Your task to perform on an android device: Clear the shopping cart on target.com. Search for logitech g910 on target.com, select the first entry, add it to the cart, then select checkout. Image 0: 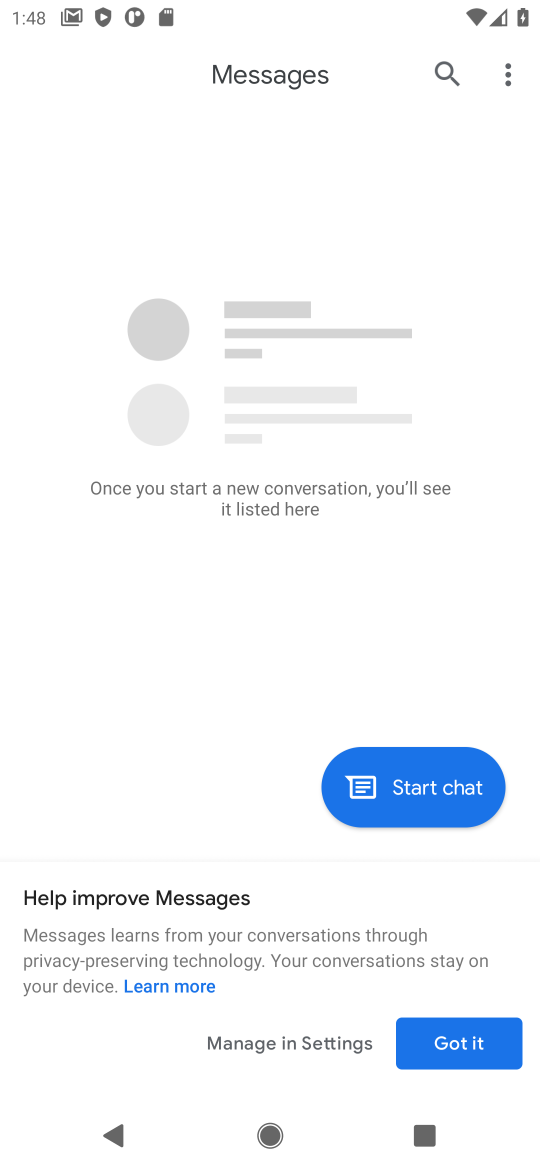
Step 0: press home button
Your task to perform on an android device: Clear the shopping cart on target.com. Search for logitech g910 on target.com, select the first entry, add it to the cart, then select checkout. Image 1: 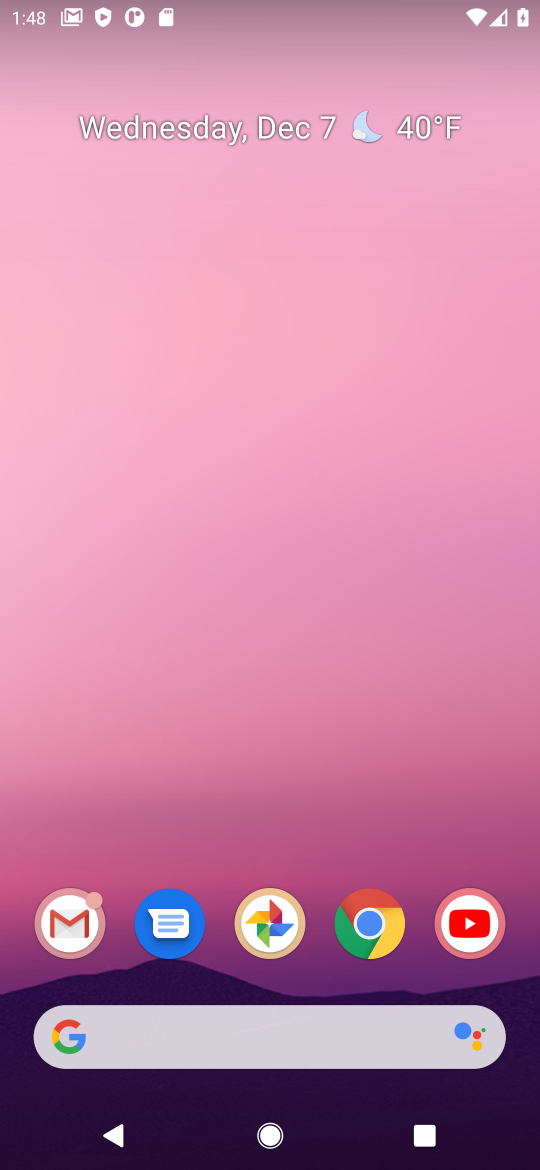
Step 1: click (373, 936)
Your task to perform on an android device: Clear the shopping cart on target.com. Search for logitech g910 on target.com, select the first entry, add it to the cart, then select checkout. Image 2: 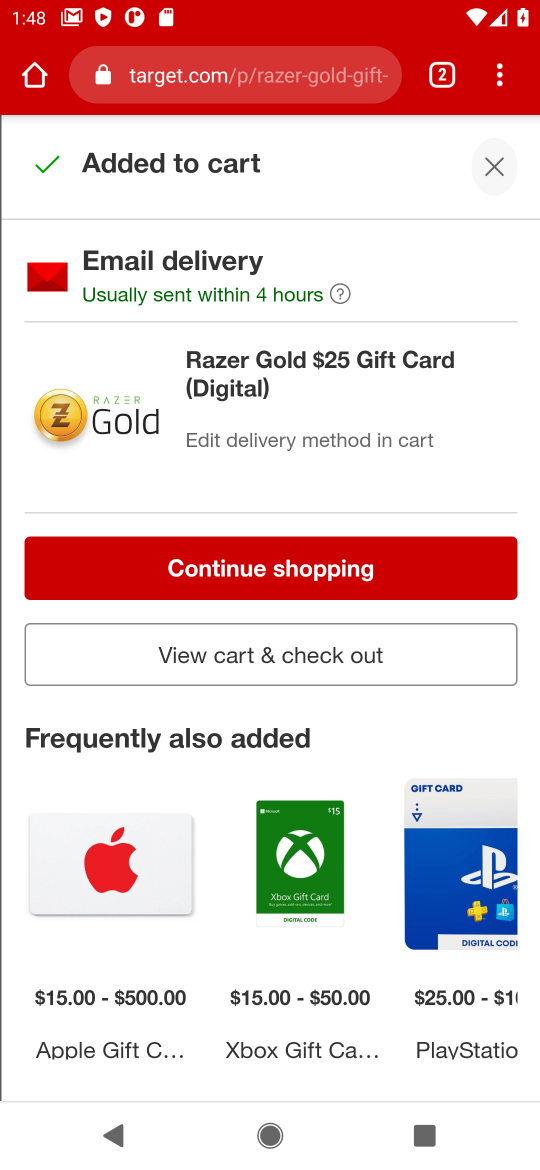
Step 2: click (486, 164)
Your task to perform on an android device: Clear the shopping cart on target.com. Search for logitech g910 on target.com, select the first entry, add it to the cart, then select checkout. Image 3: 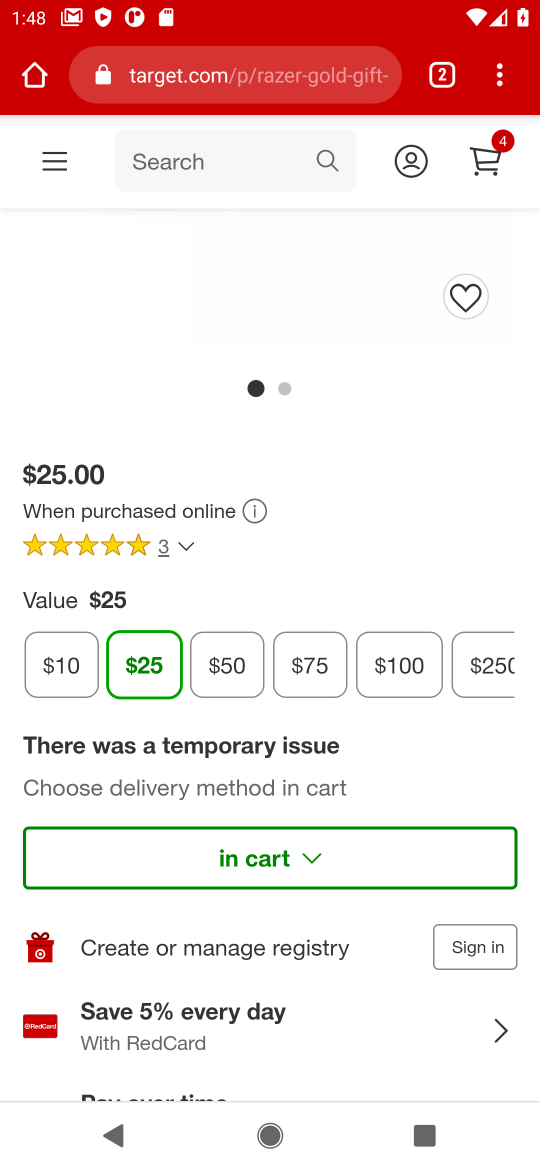
Step 3: click (491, 165)
Your task to perform on an android device: Clear the shopping cart on target.com. Search for logitech g910 on target.com, select the first entry, add it to the cart, then select checkout. Image 4: 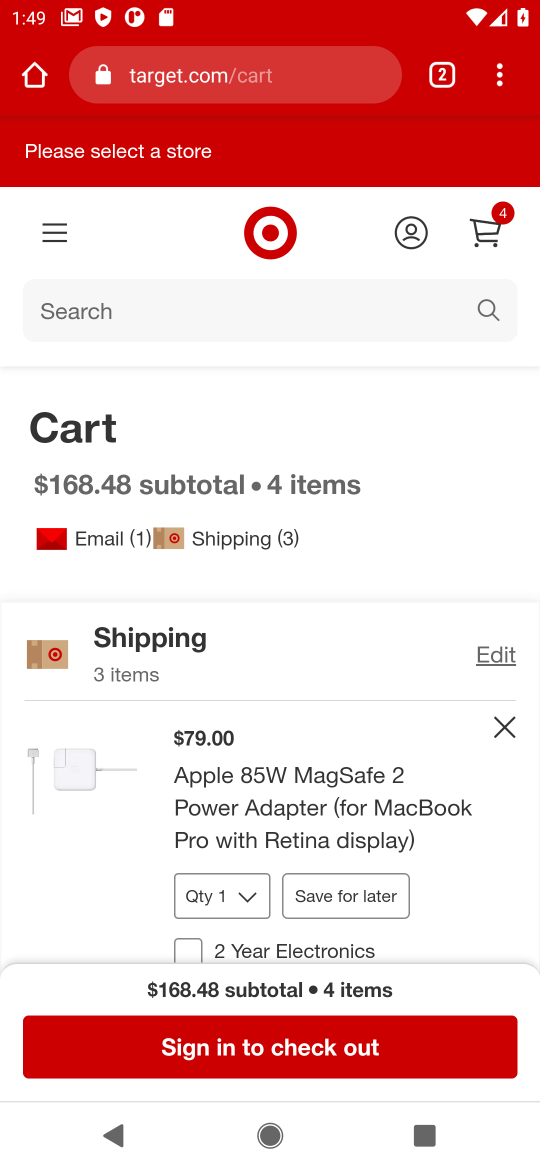
Step 4: drag from (265, 916) to (237, 359)
Your task to perform on an android device: Clear the shopping cart on target.com. Search for logitech g910 on target.com, select the first entry, add it to the cart, then select checkout. Image 5: 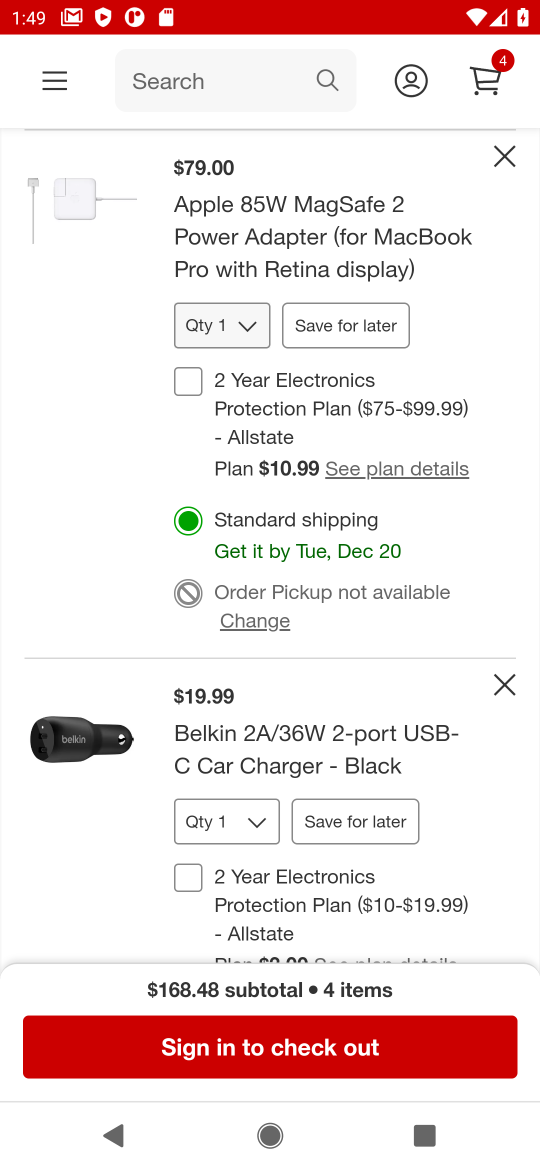
Step 5: click (502, 146)
Your task to perform on an android device: Clear the shopping cart on target.com. Search for logitech g910 on target.com, select the first entry, add it to the cart, then select checkout. Image 6: 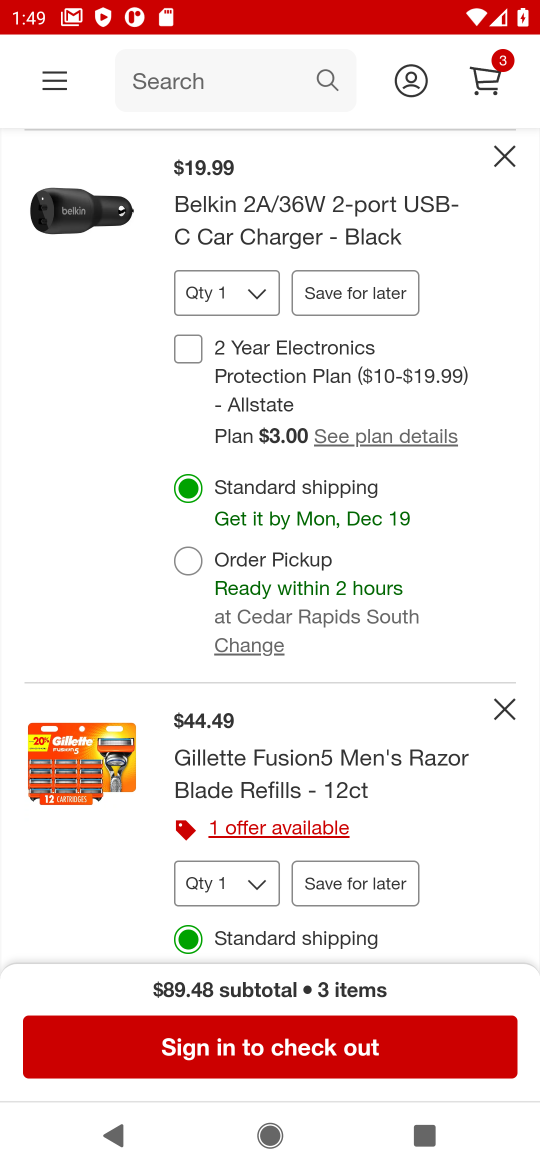
Step 6: click (502, 146)
Your task to perform on an android device: Clear the shopping cart on target.com. Search for logitech g910 on target.com, select the first entry, add it to the cart, then select checkout. Image 7: 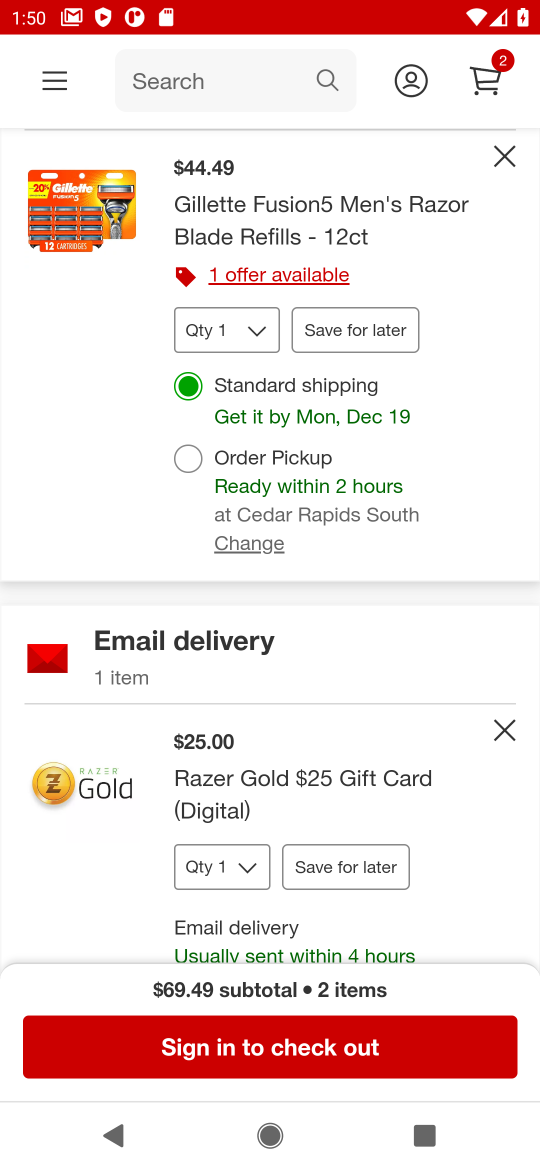
Step 7: click (501, 158)
Your task to perform on an android device: Clear the shopping cart on target.com. Search for logitech g910 on target.com, select the first entry, add it to the cart, then select checkout. Image 8: 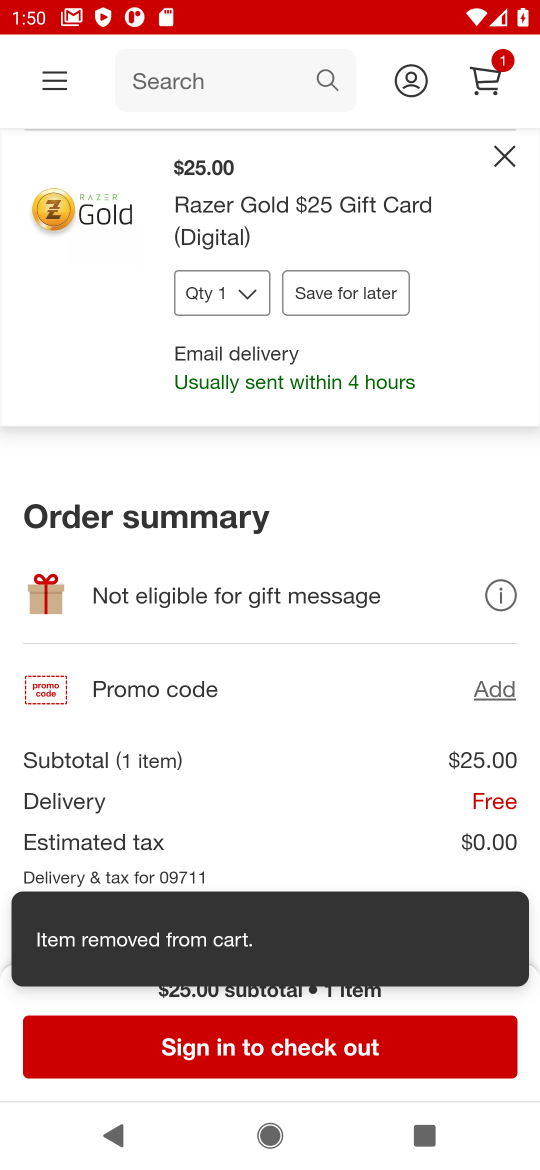
Step 8: click (501, 158)
Your task to perform on an android device: Clear the shopping cart on target.com. Search for logitech g910 on target.com, select the first entry, add it to the cart, then select checkout. Image 9: 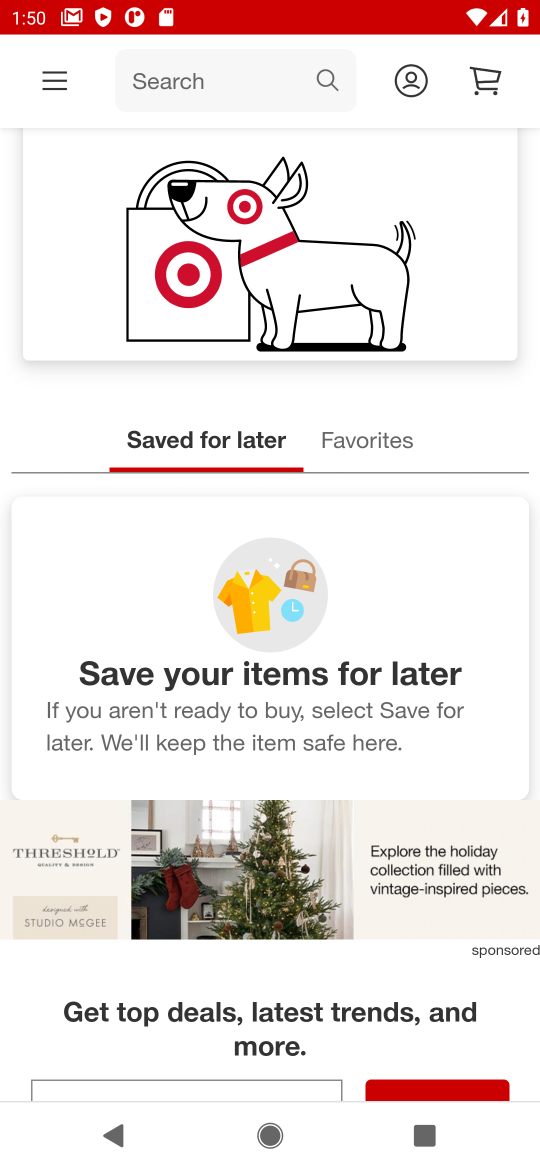
Step 9: click (232, 81)
Your task to perform on an android device: Clear the shopping cart on target.com. Search for logitech g910 on target.com, select the first entry, add it to the cart, then select checkout. Image 10: 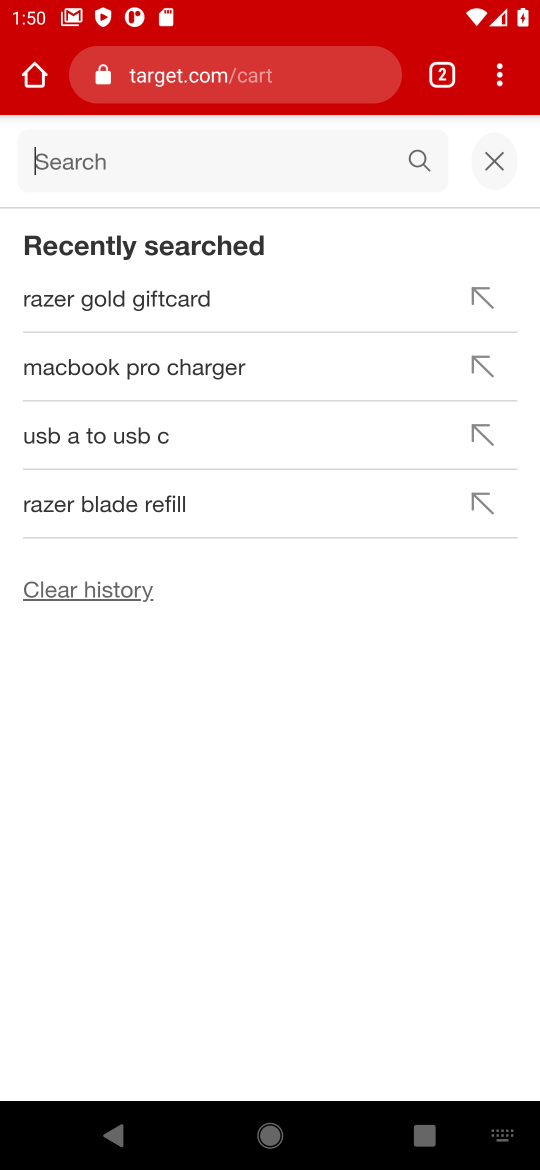
Step 10: type "logitech g910"
Your task to perform on an android device: Clear the shopping cart on target.com. Search for logitech g910 on target.com, select the first entry, add it to the cart, then select checkout. Image 11: 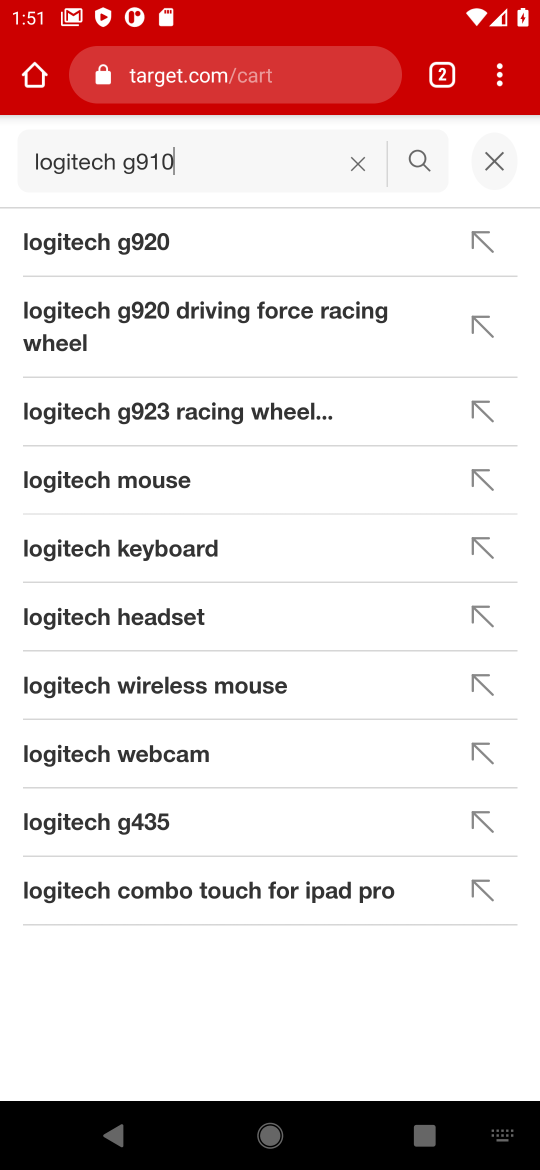
Step 11: click (179, 254)
Your task to perform on an android device: Clear the shopping cart on target.com. Search for logitech g910 on target.com, select the first entry, add it to the cart, then select checkout. Image 12: 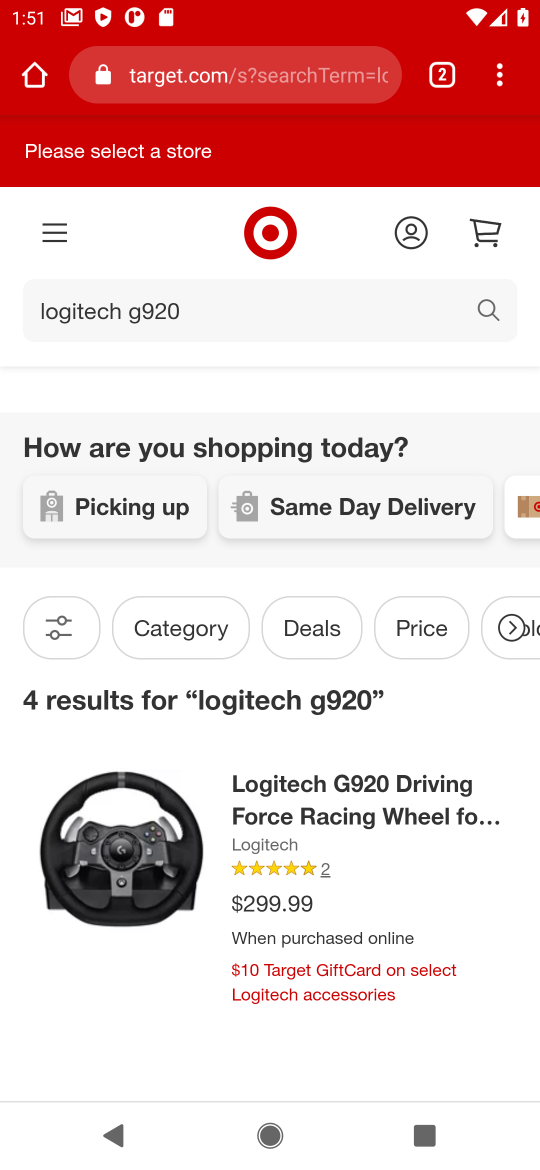
Step 12: click (138, 875)
Your task to perform on an android device: Clear the shopping cart on target.com. Search for logitech g910 on target.com, select the first entry, add it to the cart, then select checkout. Image 13: 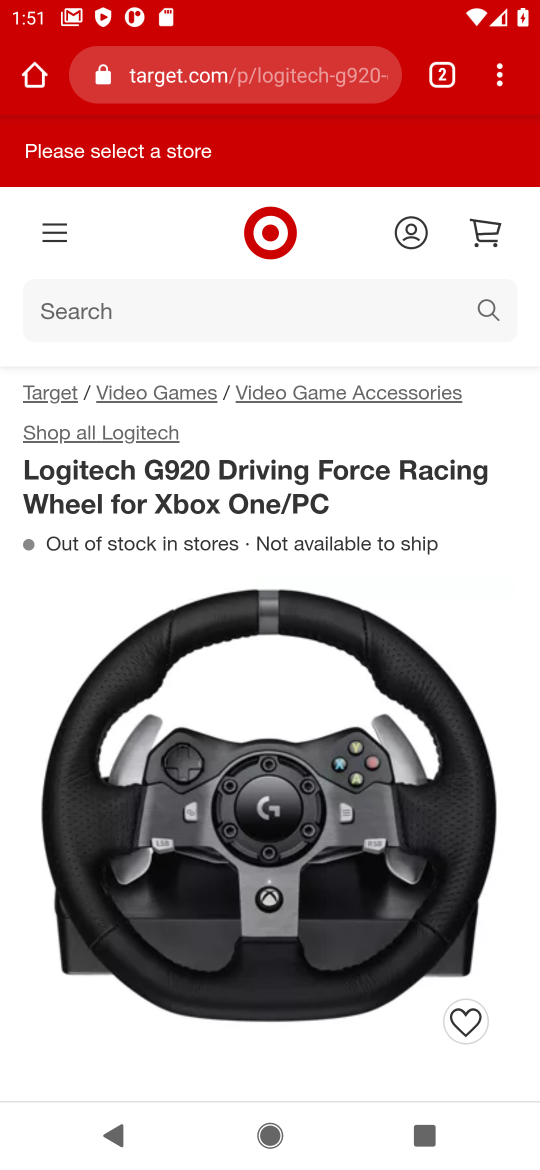
Step 13: drag from (371, 898) to (348, 219)
Your task to perform on an android device: Clear the shopping cart on target.com. Search for logitech g910 on target.com, select the first entry, add it to the cart, then select checkout. Image 14: 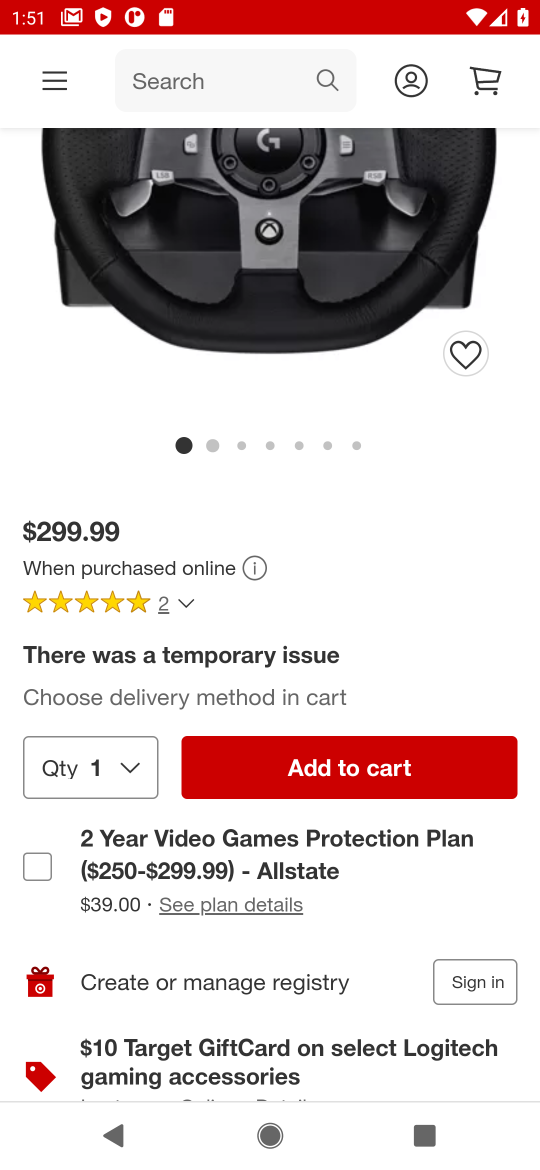
Step 14: click (355, 760)
Your task to perform on an android device: Clear the shopping cart on target.com. Search for logitech g910 on target.com, select the first entry, add it to the cart, then select checkout. Image 15: 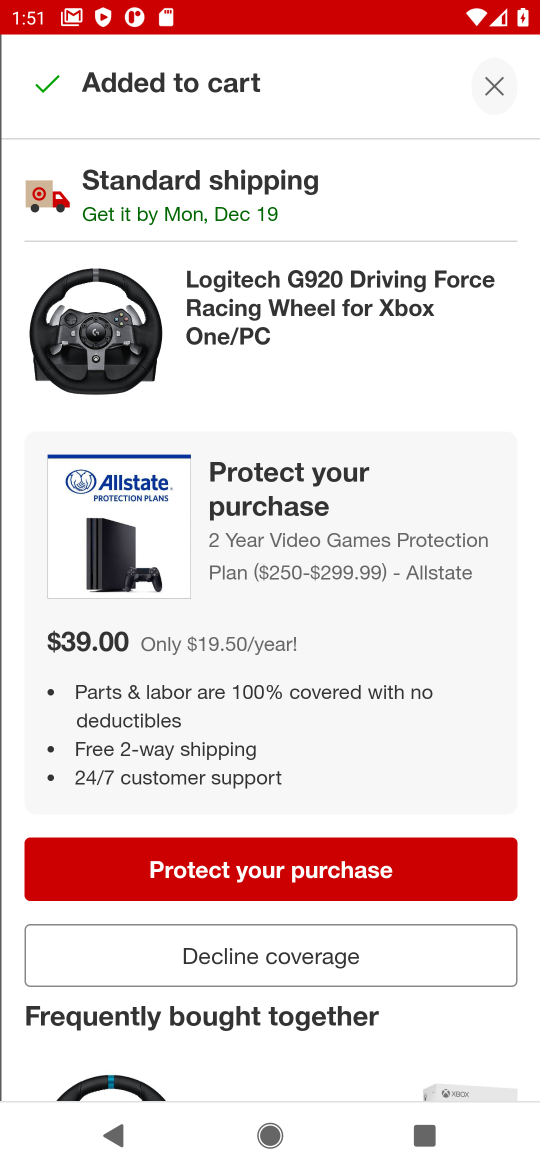
Step 15: click (301, 952)
Your task to perform on an android device: Clear the shopping cart on target.com. Search for logitech g910 on target.com, select the first entry, add it to the cart, then select checkout. Image 16: 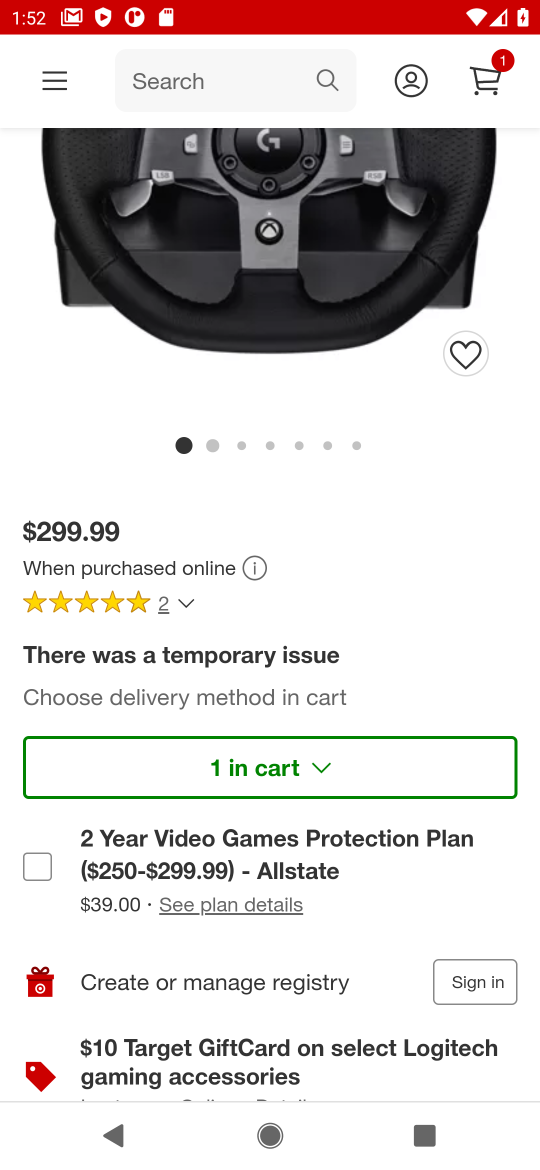
Step 16: click (478, 73)
Your task to perform on an android device: Clear the shopping cart on target.com. Search for logitech g910 on target.com, select the first entry, add it to the cart, then select checkout. Image 17: 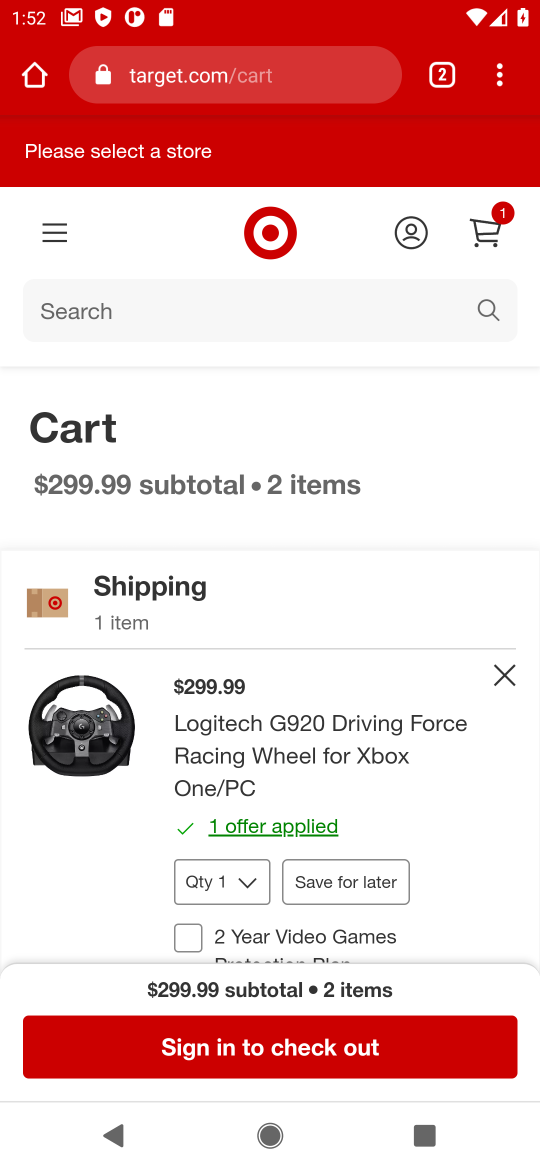
Step 17: click (320, 1057)
Your task to perform on an android device: Clear the shopping cart on target.com. Search for logitech g910 on target.com, select the first entry, add it to the cart, then select checkout. Image 18: 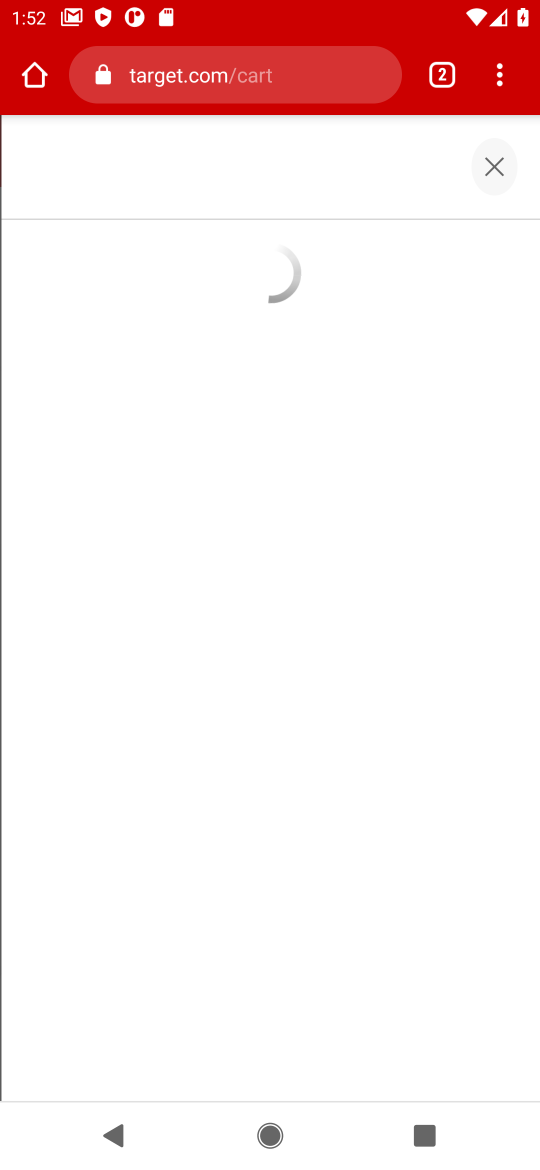
Step 18: task complete